Your task to perform on an android device: Open the calendar app, open the side menu, and click the "Day" option Image 0: 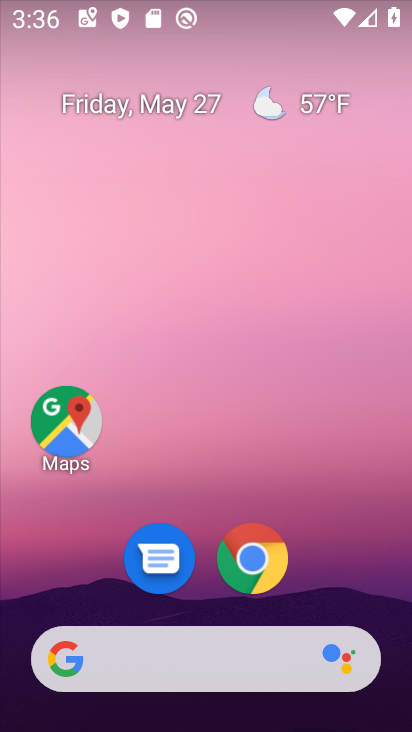
Step 0: drag from (349, 572) to (300, 38)
Your task to perform on an android device: Open the calendar app, open the side menu, and click the "Day" option Image 1: 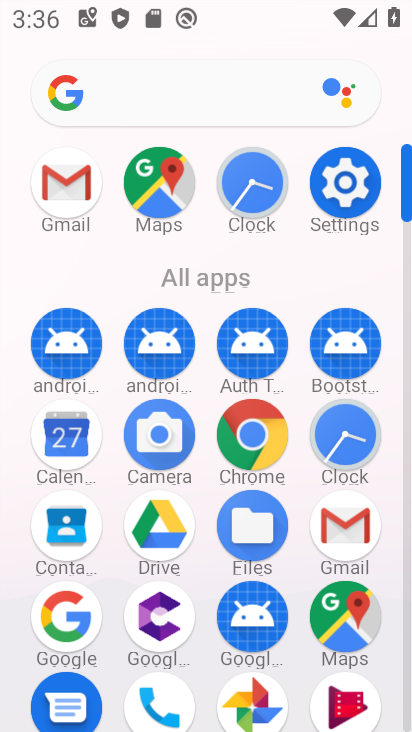
Step 1: click (59, 460)
Your task to perform on an android device: Open the calendar app, open the side menu, and click the "Day" option Image 2: 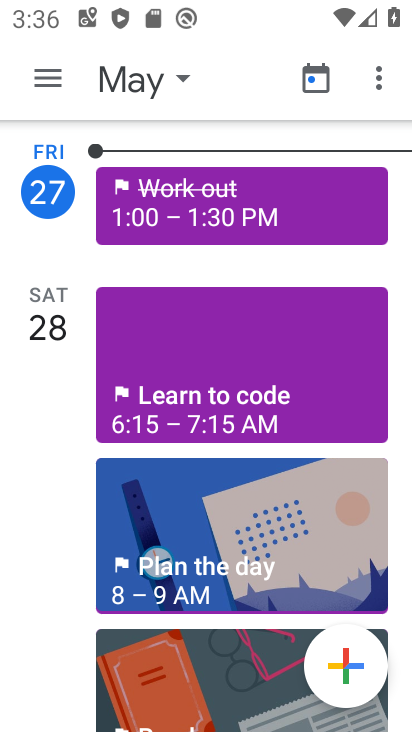
Step 2: click (61, 77)
Your task to perform on an android device: Open the calendar app, open the side menu, and click the "Day" option Image 3: 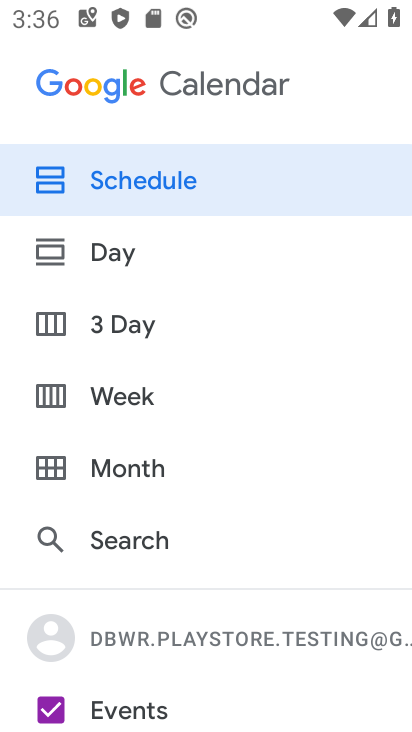
Step 3: click (161, 250)
Your task to perform on an android device: Open the calendar app, open the side menu, and click the "Day" option Image 4: 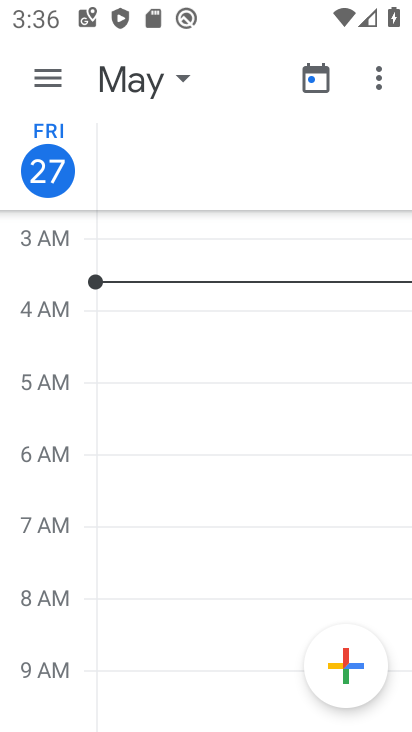
Step 4: task complete